Your task to perform on an android device: change the clock style Image 0: 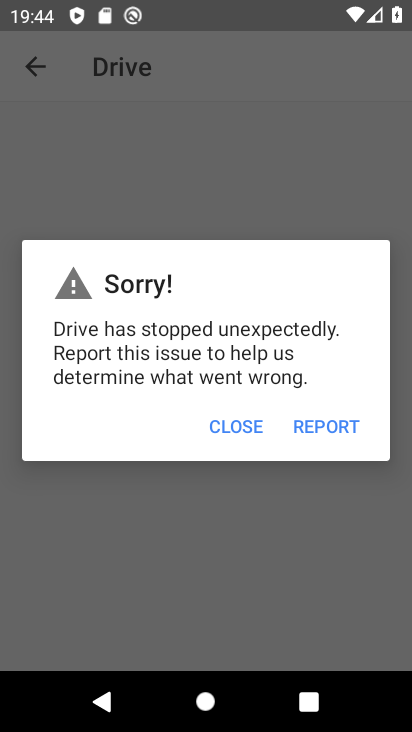
Step 0: press home button
Your task to perform on an android device: change the clock style Image 1: 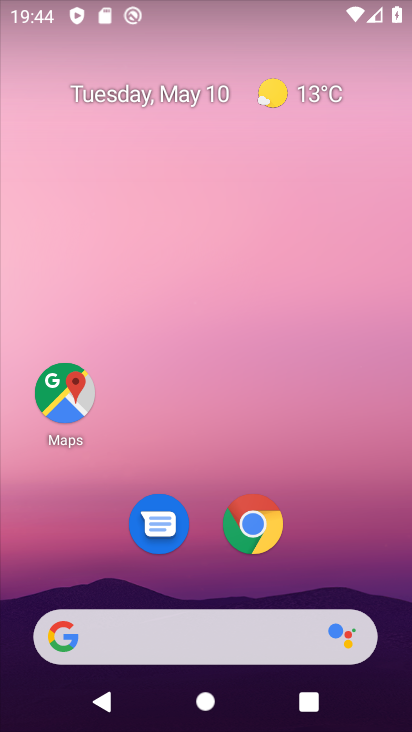
Step 1: drag from (312, 531) to (335, 61)
Your task to perform on an android device: change the clock style Image 2: 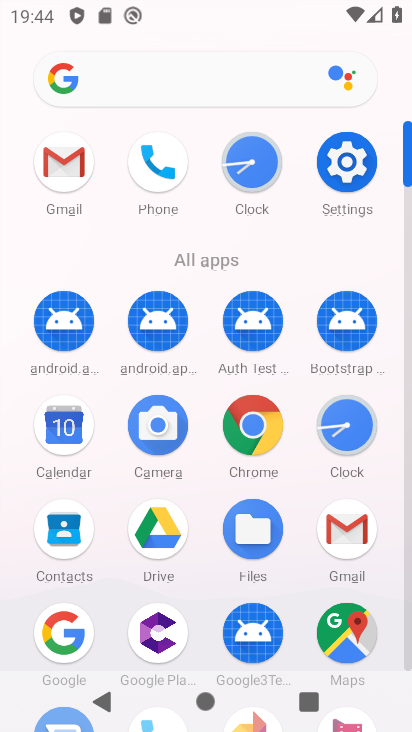
Step 2: click (264, 155)
Your task to perform on an android device: change the clock style Image 3: 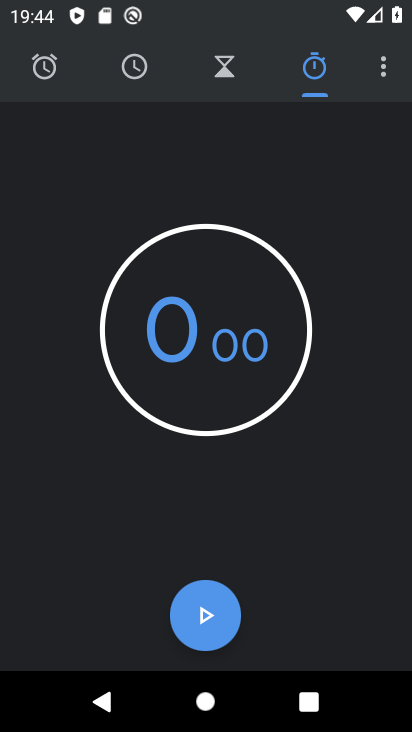
Step 3: click (377, 68)
Your task to perform on an android device: change the clock style Image 4: 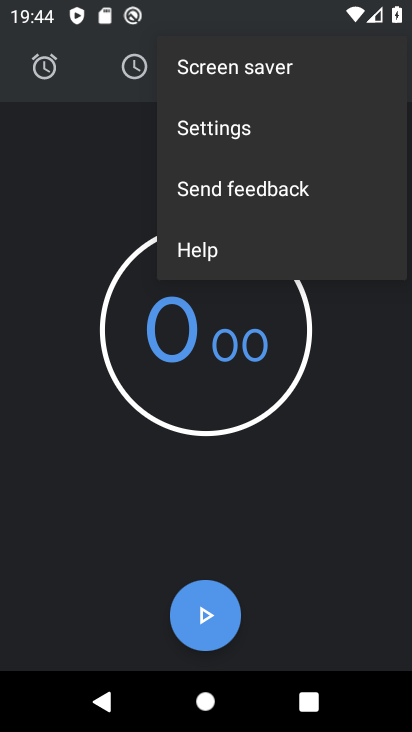
Step 4: click (313, 129)
Your task to perform on an android device: change the clock style Image 5: 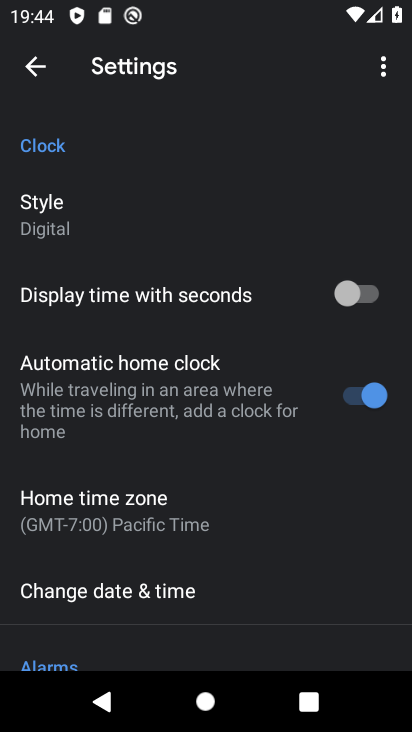
Step 5: click (81, 209)
Your task to perform on an android device: change the clock style Image 6: 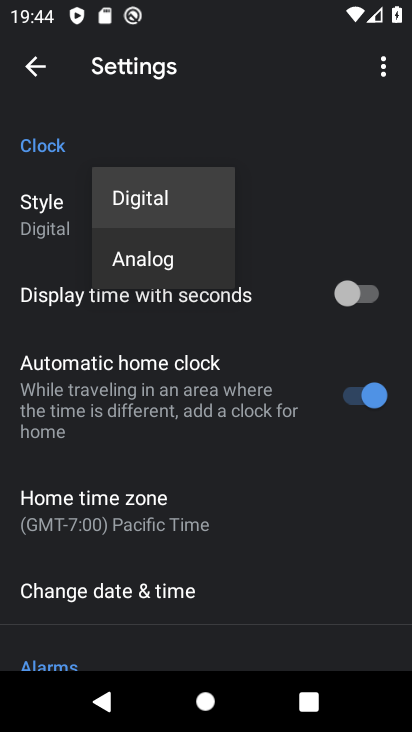
Step 6: click (128, 254)
Your task to perform on an android device: change the clock style Image 7: 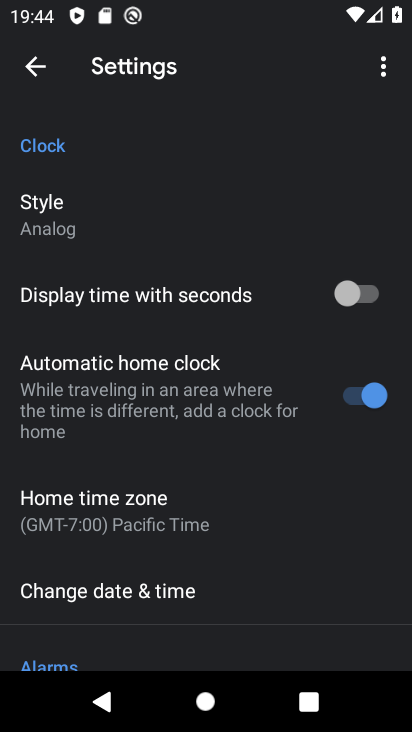
Step 7: click (35, 58)
Your task to perform on an android device: change the clock style Image 8: 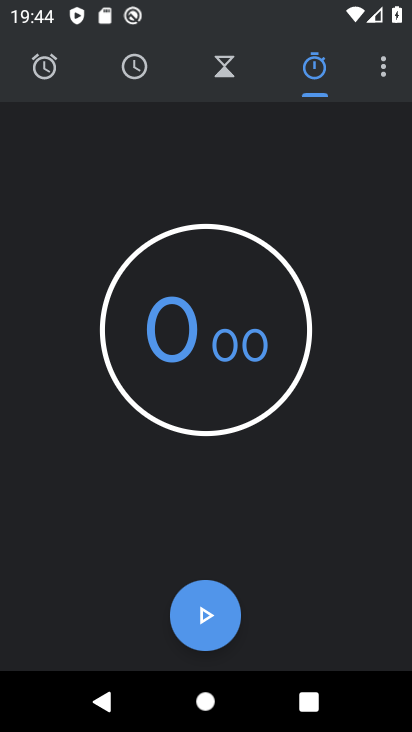
Step 8: click (127, 68)
Your task to perform on an android device: change the clock style Image 9: 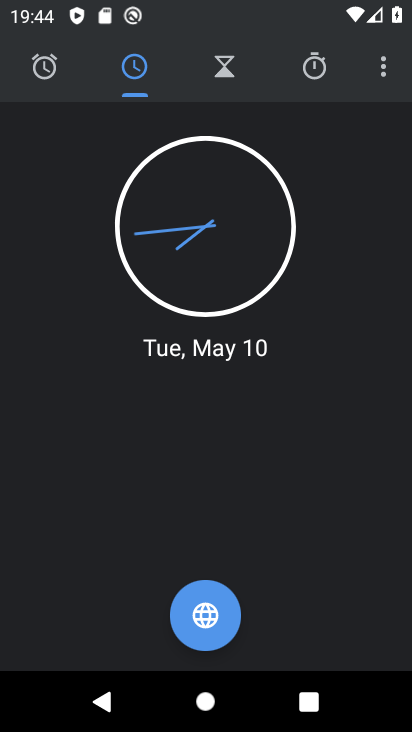
Step 9: task complete